Your task to perform on an android device: Check the weather Image 0: 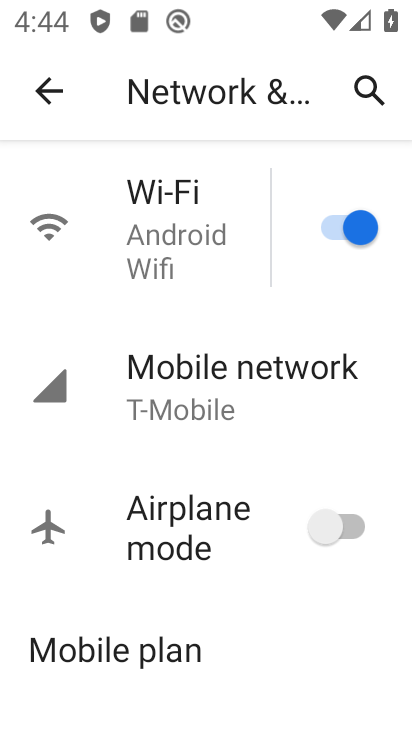
Step 0: press home button
Your task to perform on an android device: Check the weather Image 1: 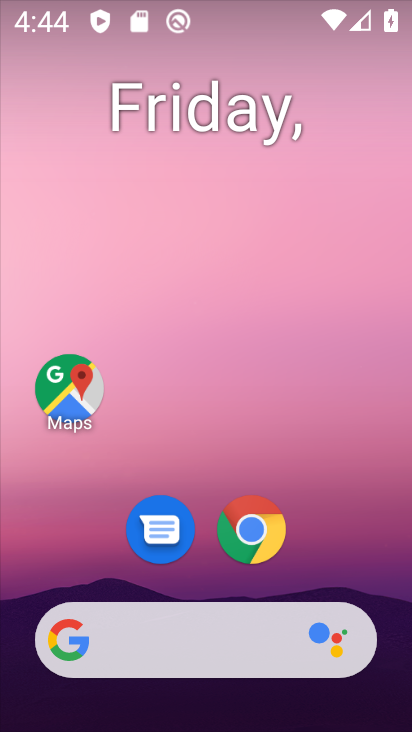
Step 1: drag from (356, 495) to (235, 45)
Your task to perform on an android device: Check the weather Image 2: 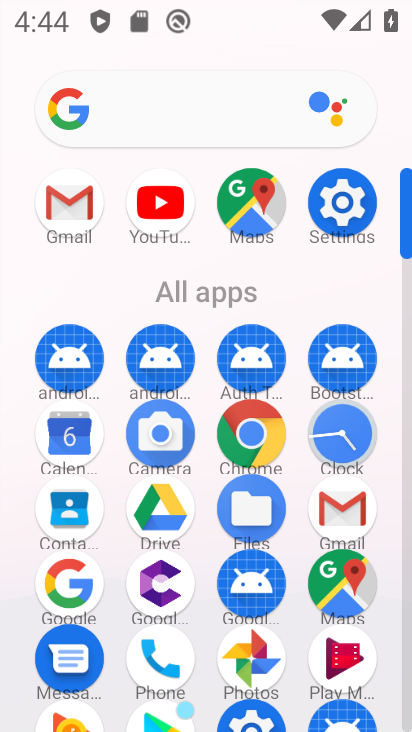
Step 2: click (81, 597)
Your task to perform on an android device: Check the weather Image 3: 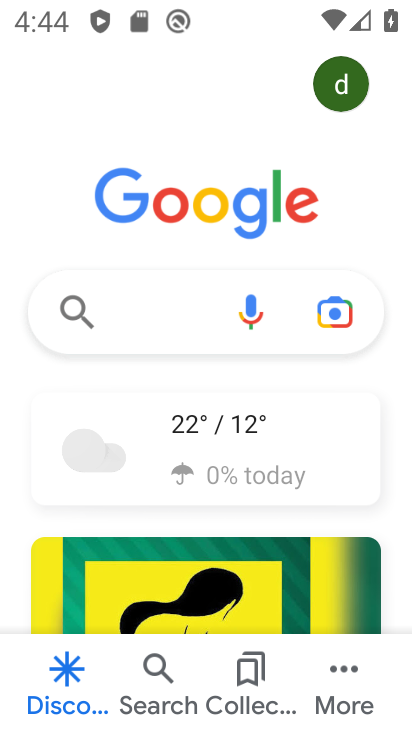
Step 3: click (111, 456)
Your task to perform on an android device: Check the weather Image 4: 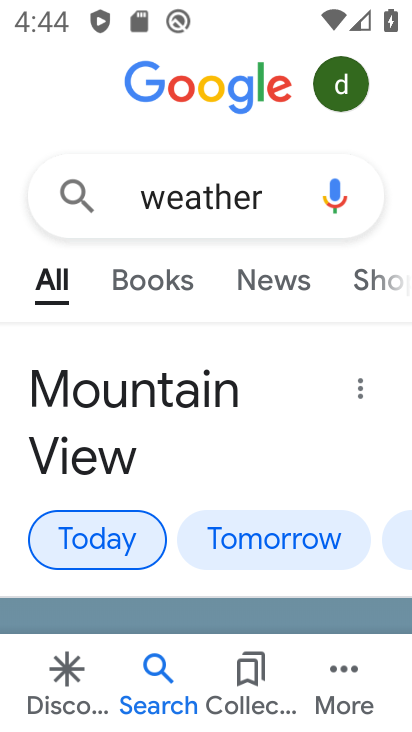
Step 4: task complete